Your task to perform on an android device: What's the weather going to be tomorrow? Image 0: 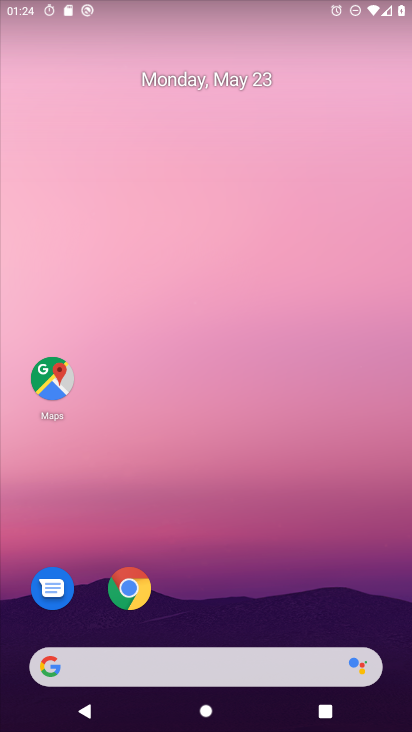
Step 0: press home button
Your task to perform on an android device: What's the weather going to be tomorrow? Image 1: 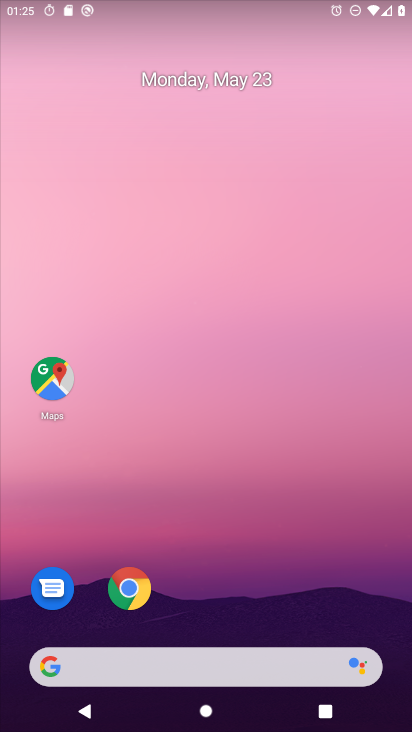
Step 1: drag from (249, 686) to (235, 198)
Your task to perform on an android device: What's the weather going to be tomorrow? Image 2: 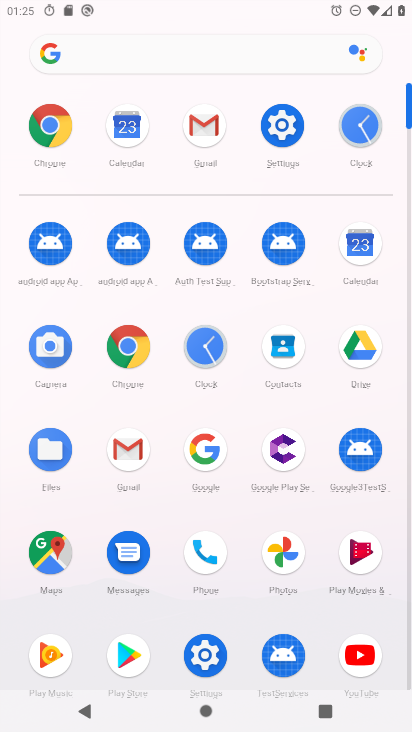
Step 2: click (154, 52)
Your task to perform on an android device: What's the weather going to be tomorrow? Image 3: 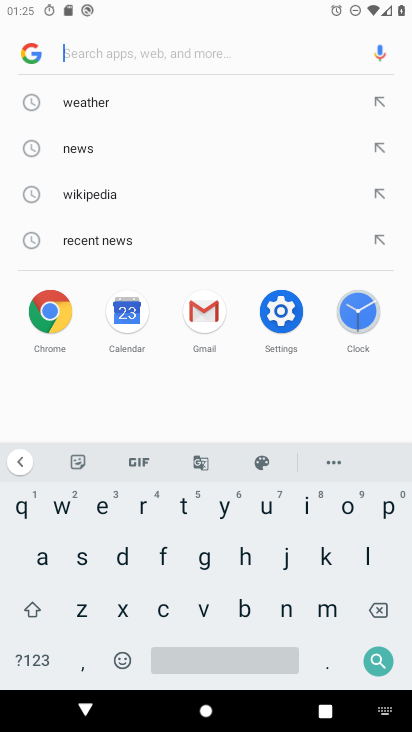
Step 3: click (109, 101)
Your task to perform on an android device: What's the weather going to be tomorrow? Image 4: 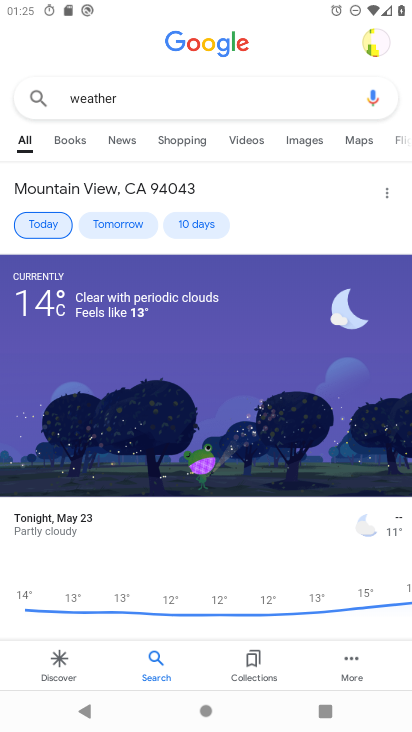
Step 4: task complete